Your task to perform on an android device: install app "Reddit" Image 0: 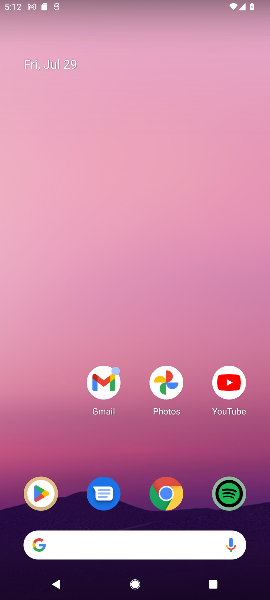
Step 0: drag from (150, 594) to (164, 171)
Your task to perform on an android device: install app "Reddit" Image 1: 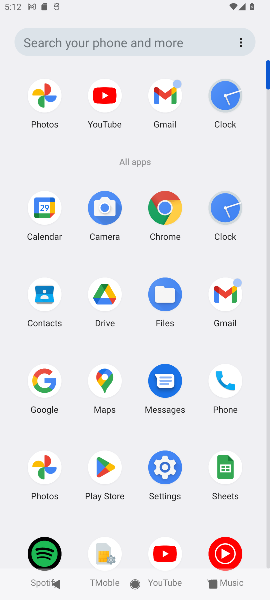
Step 1: click (159, 96)
Your task to perform on an android device: install app "Reddit" Image 2: 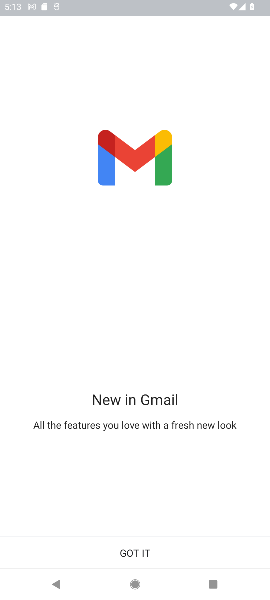
Step 2: press home button
Your task to perform on an android device: install app "Reddit" Image 3: 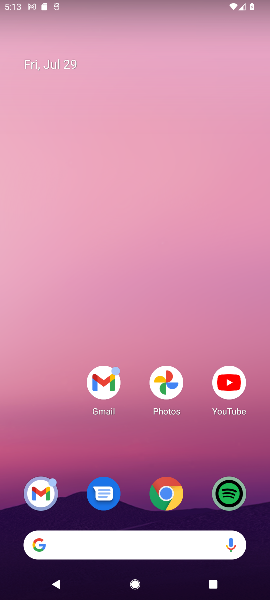
Step 3: drag from (167, 594) to (180, 65)
Your task to perform on an android device: install app "Reddit" Image 4: 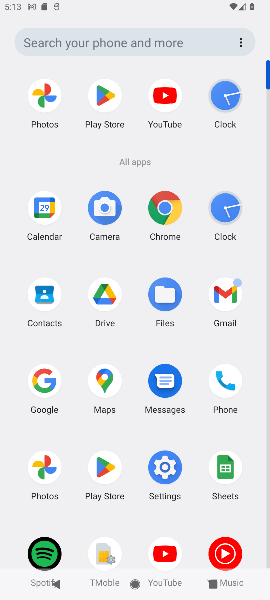
Step 4: click (102, 468)
Your task to perform on an android device: install app "Reddit" Image 5: 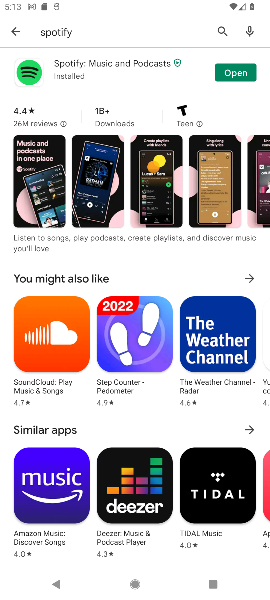
Step 5: click (218, 26)
Your task to perform on an android device: install app "Reddit" Image 6: 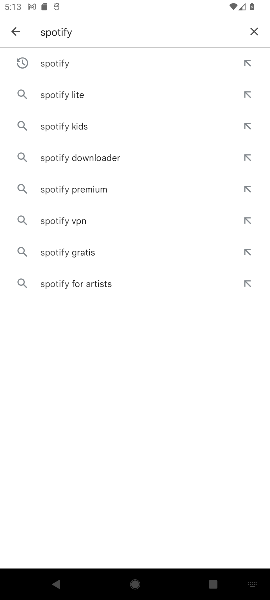
Step 6: click (257, 28)
Your task to perform on an android device: install app "Reddit" Image 7: 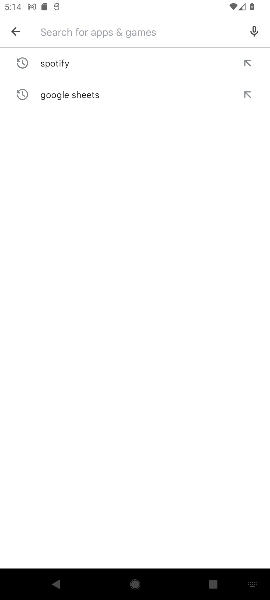
Step 7: type "Reddit"
Your task to perform on an android device: install app "Reddit" Image 8: 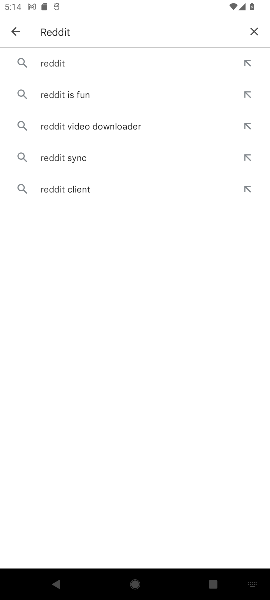
Step 8: click (55, 61)
Your task to perform on an android device: install app "Reddit" Image 9: 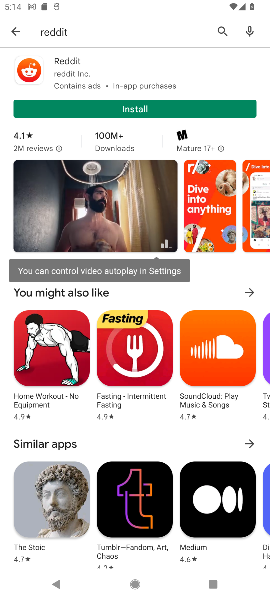
Step 9: click (153, 108)
Your task to perform on an android device: install app "Reddit" Image 10: 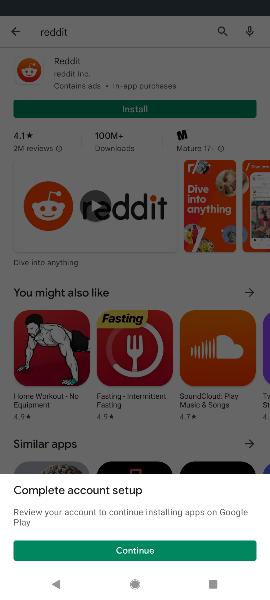
Step 10: click (168, 553)
Your task to perform on an android device: install app "Reddit" Image 11: 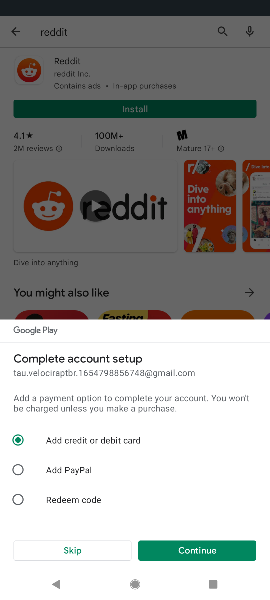
Step 11: click (89, 553)
Your task to perform on an android device: install app "Reddit" Image 12: 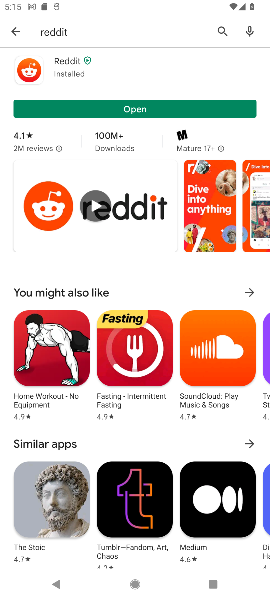
Step 12: task complete